Your task to perform on an android device: toggle translation in the chrome app Image 0: 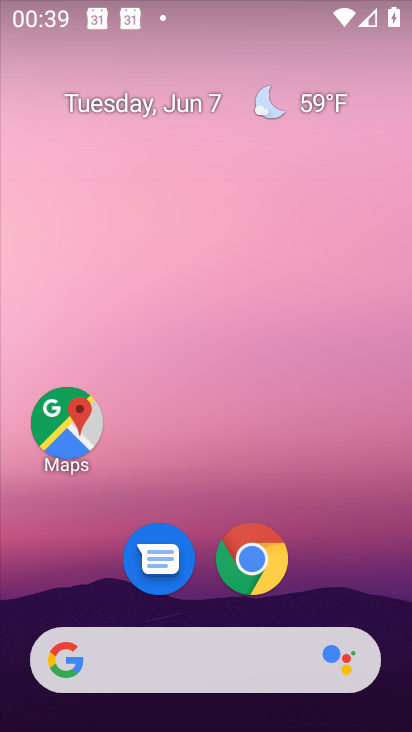
Step 0: click (260, 556)
Your task to perform on an android device: toggle translation in the chrome app Image 1: 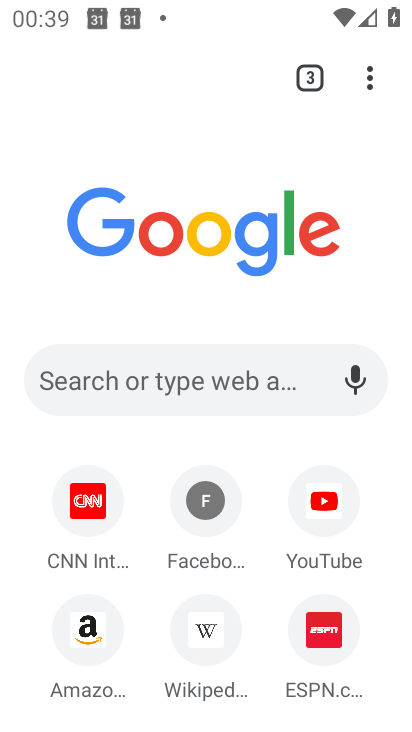
Step 1: click (360, 62)
Your task to perform on an android device: toggle translation in the chrome app Image 2: 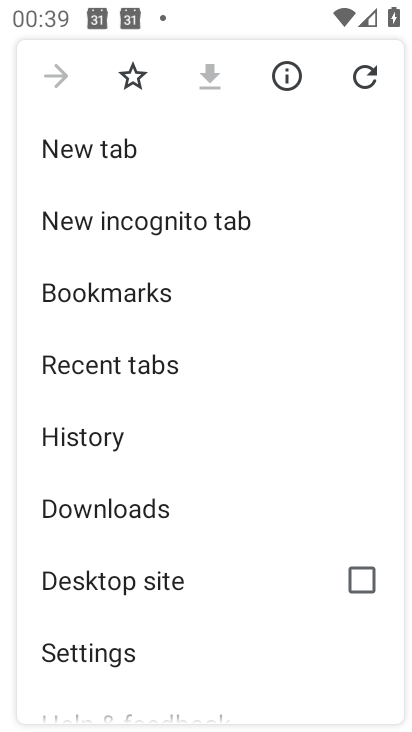
Step 2: click (251, 660)
Your task to perform on an android device: toggle translation in the chrome app Image 3: 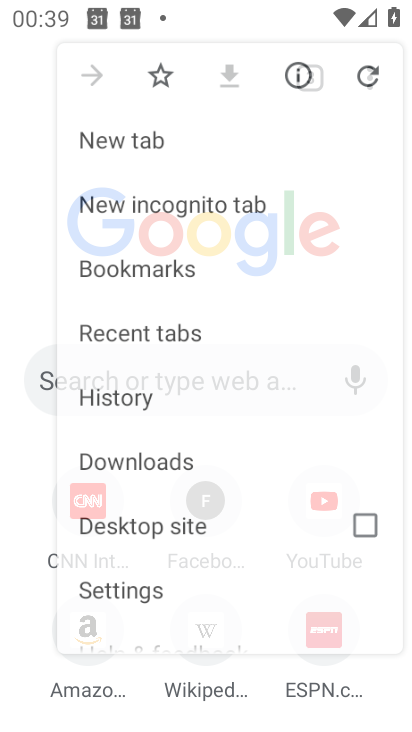
Step 3: drag from (256, 497) to (295, 201)
Your task to perform on an android device: toggle translation in the chrome app Image 4: 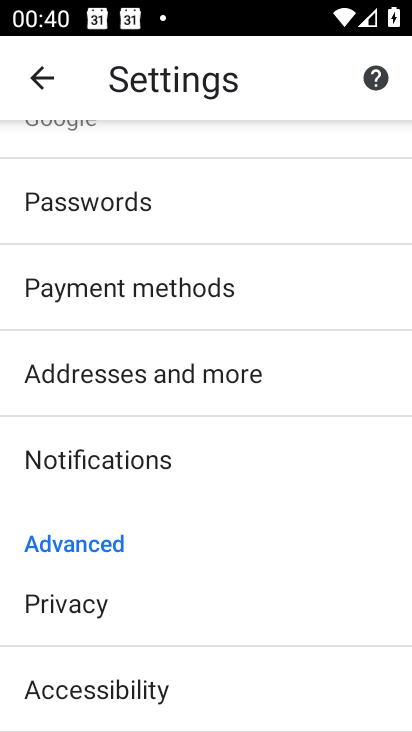
Step 4: click (37, 77)
Your task to perform on an android device: toggle translation in the chrome app Image 5: 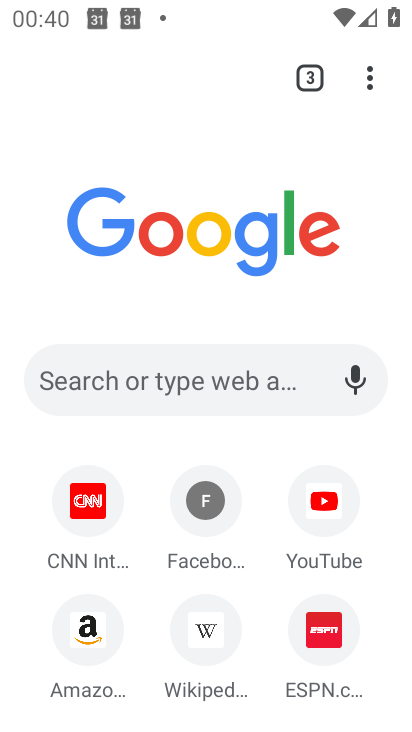
Step 5: click (358, 69)
Your task to perform on an android device: toggle translation in the chrome app Image 6: 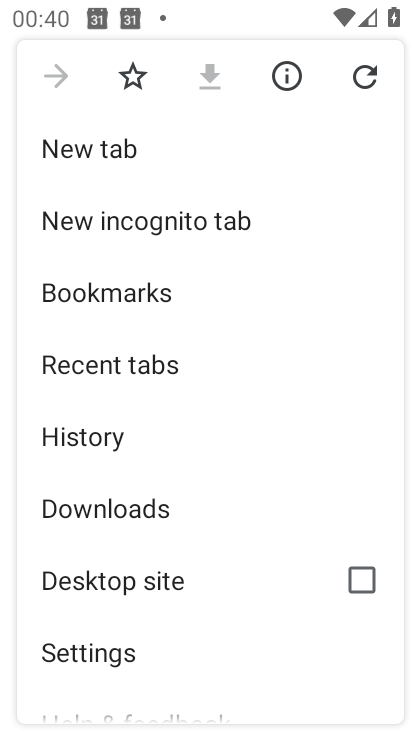
Step 6: drag from (211, 689) to (255, 355)
Your task to perform on an android device: toggle translation in the chrome app Image 7: 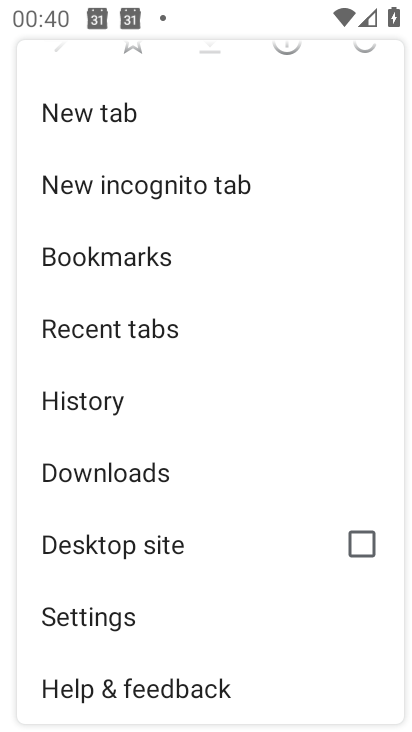
Step 7: click (99, 617)
Your task to perform on an android device: toggle translation in the chrome app Image 8: 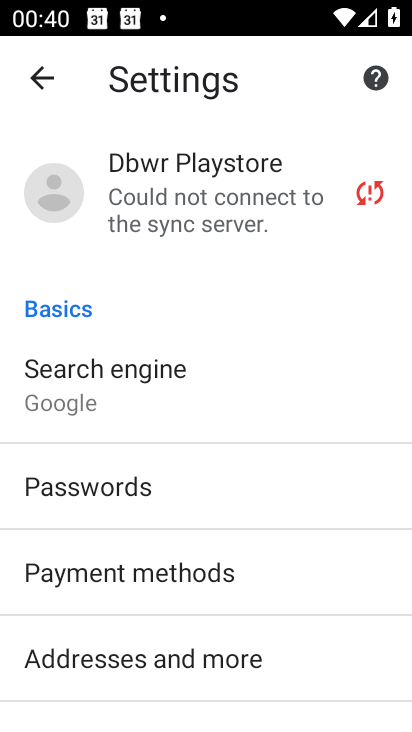
Step 8: drag from (207, 640) to (241, 403)
Your task to perform on an android device: toggle translation in the chrome app Image 9: 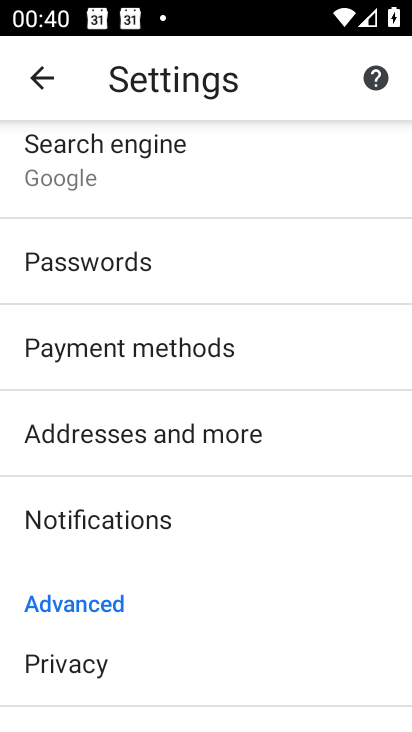
Step 9: drag from (124, 673) to (151, 496)
Your task to perform on an android device: toggle translation in the chrome app Image 10: 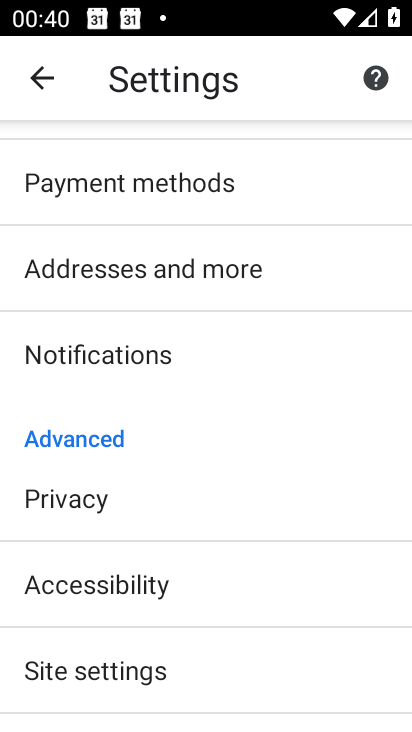
Step 10: drag from (157, 673) to (152, 395)
Your task to perform on an android device: toggle translation in the chrome app Image 11: 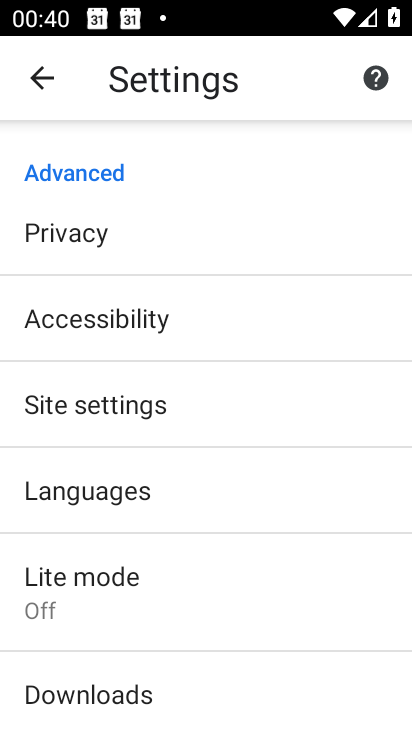
Step 11: click (109, 482)
Your task to perform on an android device: toggle translation in the chrome app Image 12: 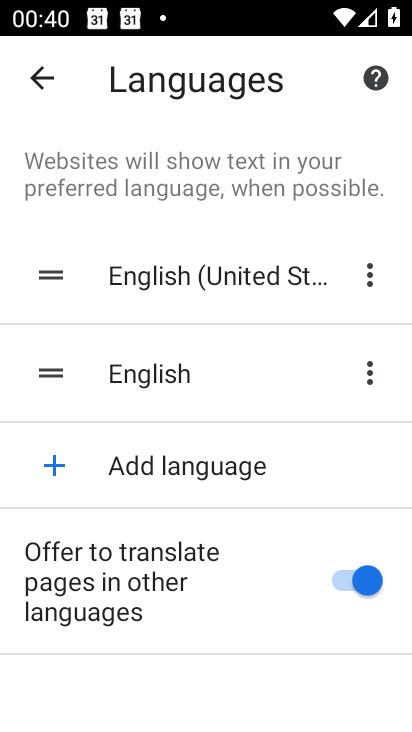
Step 12: click (146, 631)
Your task to perform on an android device: toggle translation in the chrome app Image 13: 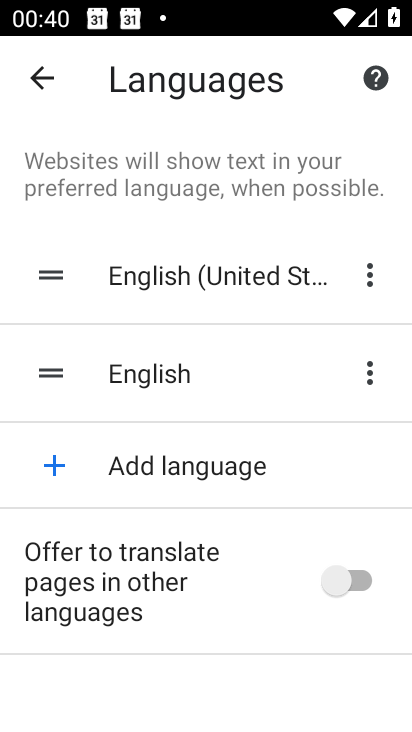
Step 13: task complete